Your task to perform on an android device: star an email in the gmail app Image 0: 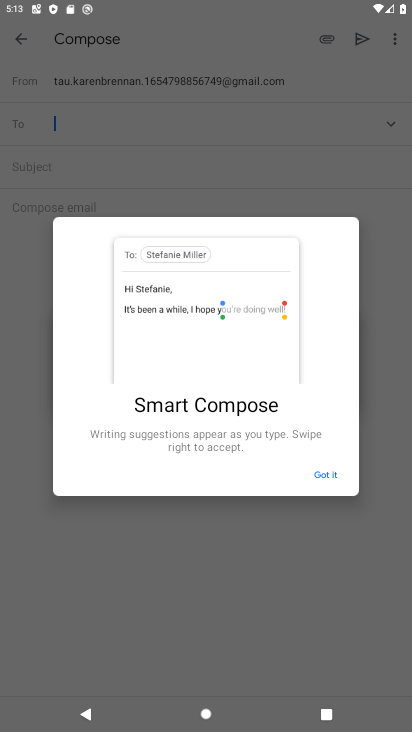
Step 0: press home button
Your task to perform on an android device: star an email in the gmail app Image 1: 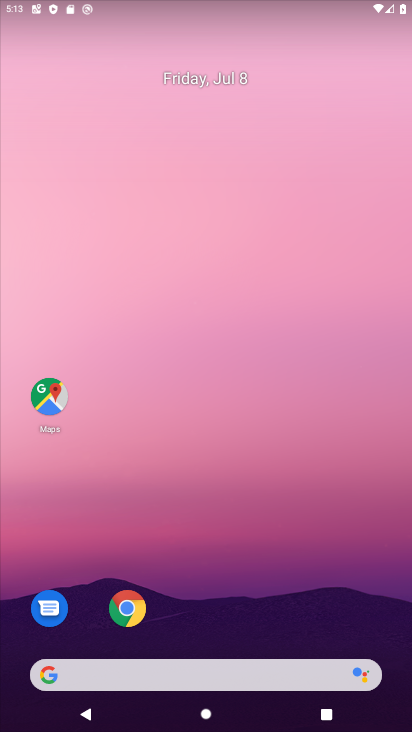
Step 1: drag from (184, 575) to (139, 82)
Your task to perform on an android device: star an email in the gmail app Image 2: 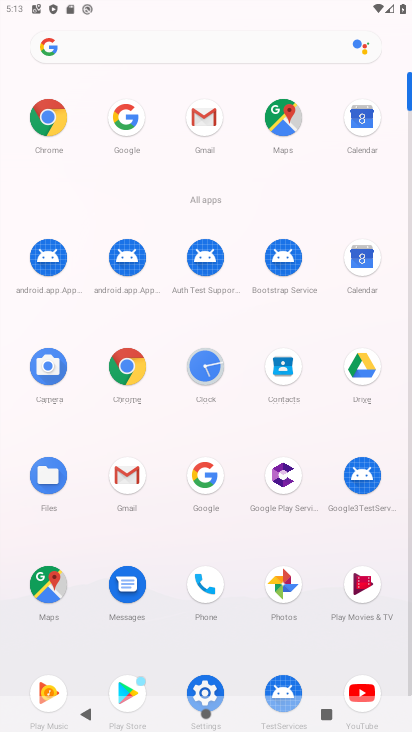
Step 2: click (128, 475)
Your task to perform on an android device: star an email in the gmail app Image 3: 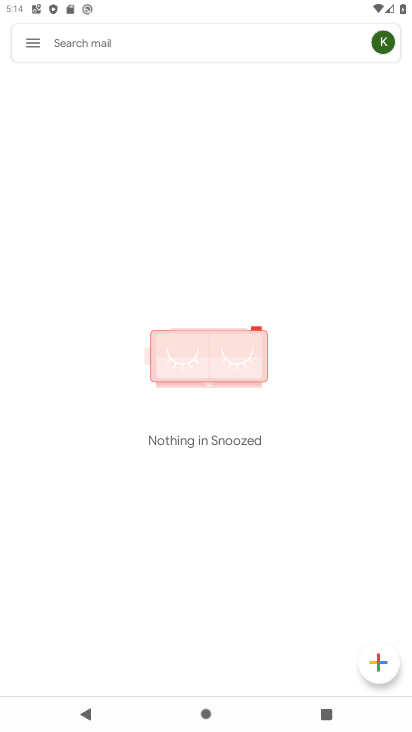
Step 3: click (41, 40)
Your task to perform on an android device: star an email in the gmail app Image 4: 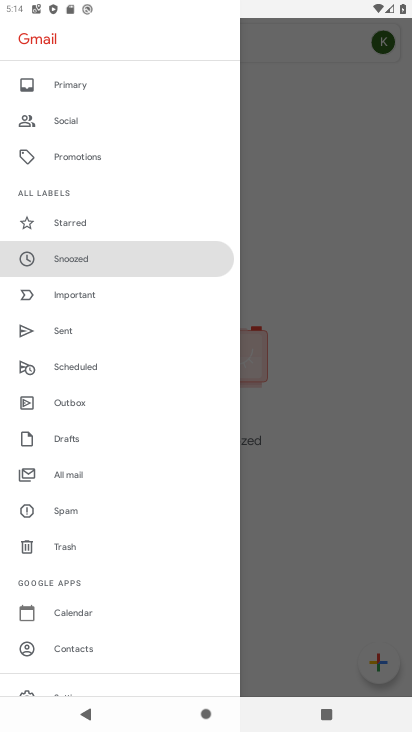
Step 4: click (81, 231)
Your task to perform on an android device: star an email in the gmail app Image 5: 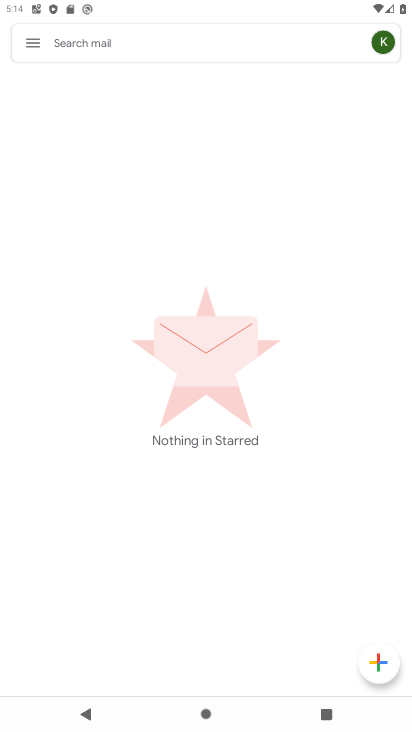
Step 5: task complete